Your task to perform on an android device: add a contact Image 0: 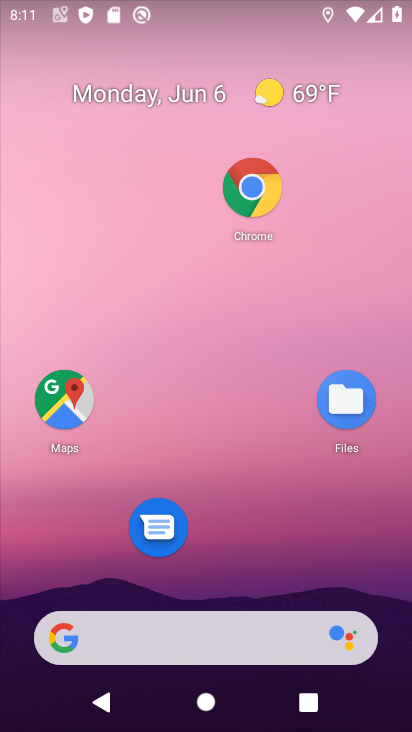
Step 0: drag from (231, 290) to (213, 56)
Your task to perform on an android device: add a contact Image 1: 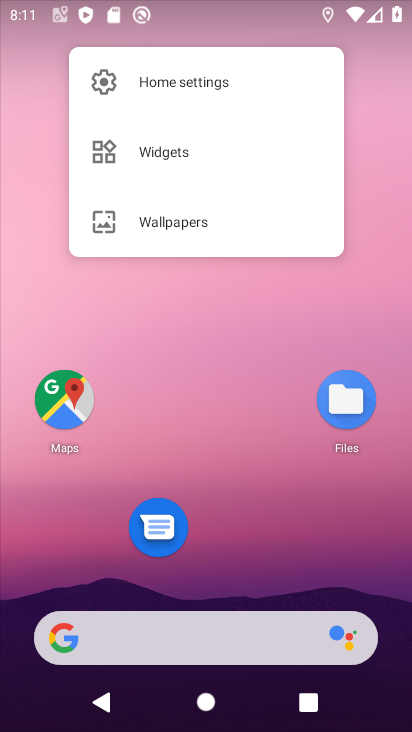
Step 1: click (272, 460)
Your task to perform on an android device: add a contact Image 2: 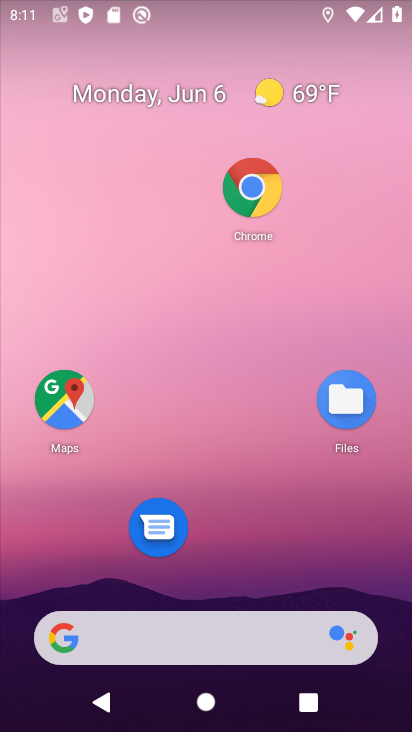
Step 2: drag from (228, 591) to (208, 71)
Your task to perform on an android device: add a contact Image 3: 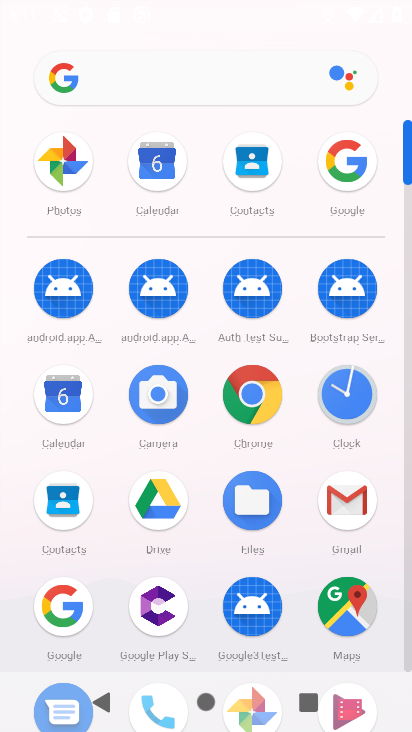
Step 3: click (63, 502)
Your task to perform on an android device: add a contact Image 4: 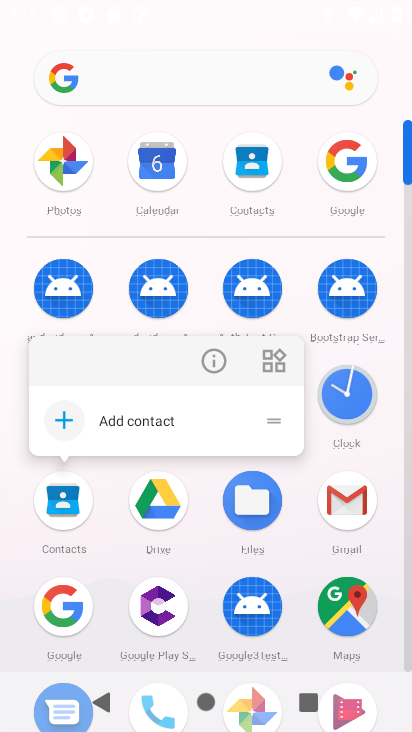
Step 4: click (63, 502)
Your task to perform on an android device: add a contact Image 5: 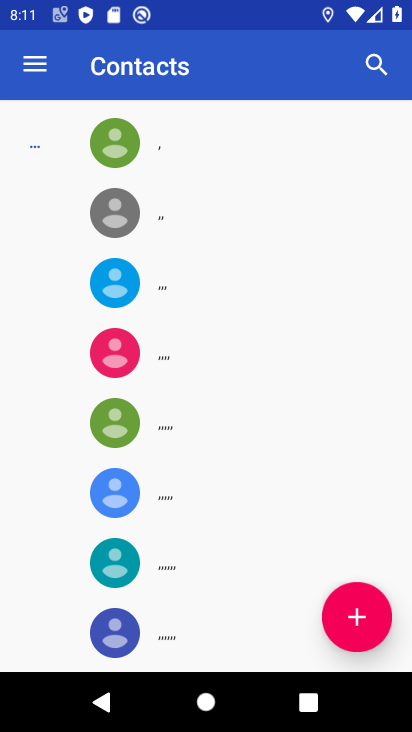
Step 5: click (363, 614)
Your task to perform on an android device: add a contact Image 6: 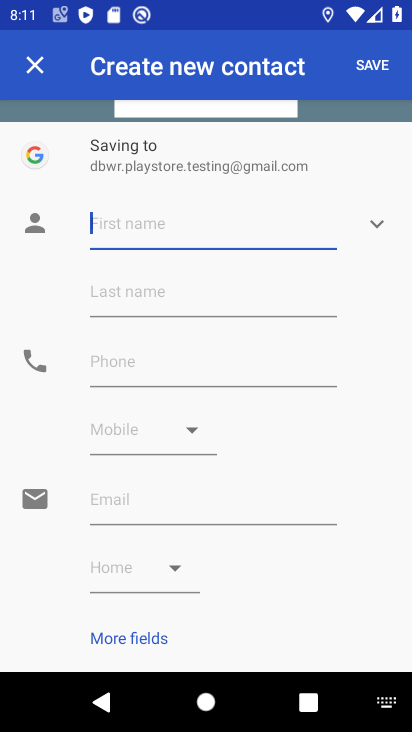
Step 6: type "nghgt"
Your task to perform on an android device: add a contact Image 7: 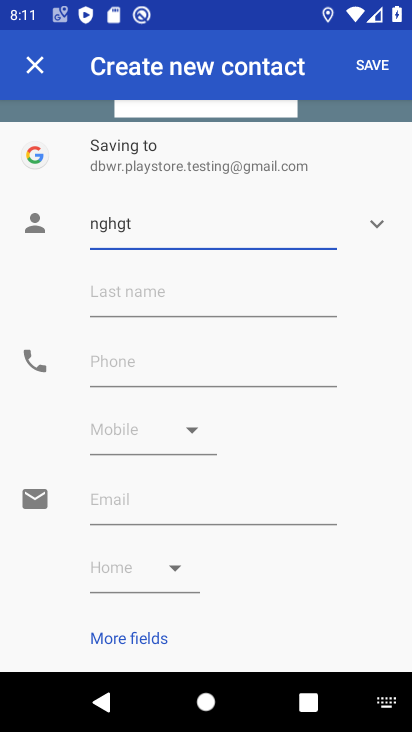
Step 7: click (368, 70)
Your task to perform on an android device: add a contact Image 8: 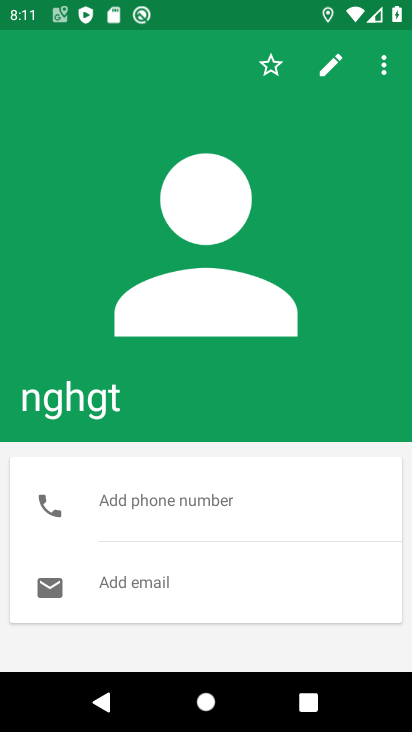
Step 8: task complete